Your task to perform on an android device: Go to ESPN.com Image 0: 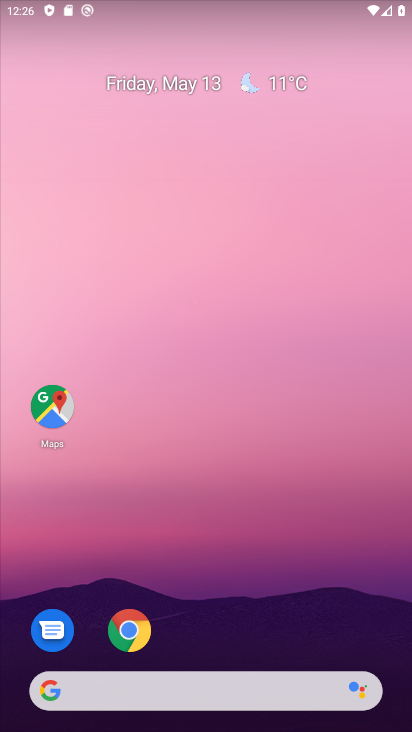
Step 0: click (149, 639)
Your task to perform on an android device: Go to ESPN.com Image 1: 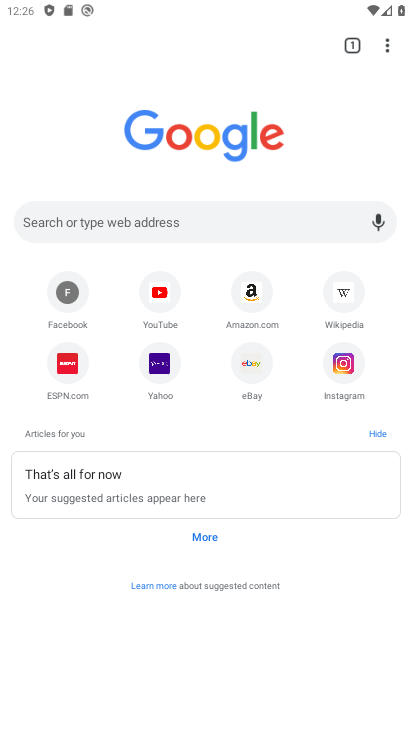
Step 1: click (70, 365)
Your task to perform on an android device: Go to ESPN.com Image 2: 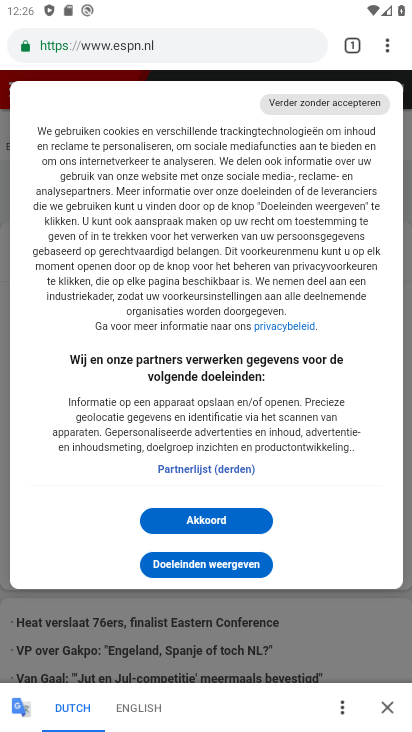
Step 2: task complete